Your task to perform on an android device: turn off data saver in the chrome app Image 0: 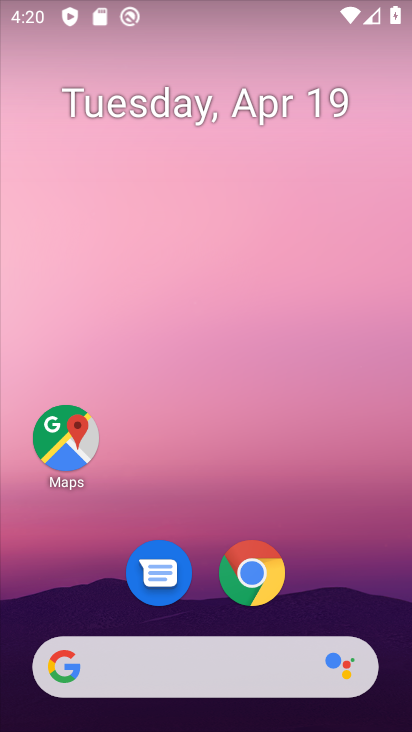
Step 0: drag from (333, 486) to (364, 86)
Your task to perform on an android device: turn off data saver in the chrome app Image 1: 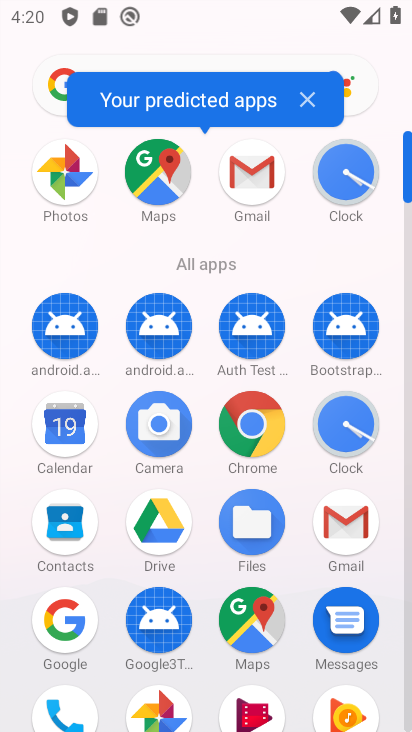
Step 1: click (247, 425)
Your task to perform on an android device: turn off data saver in the chrome app Image 2: 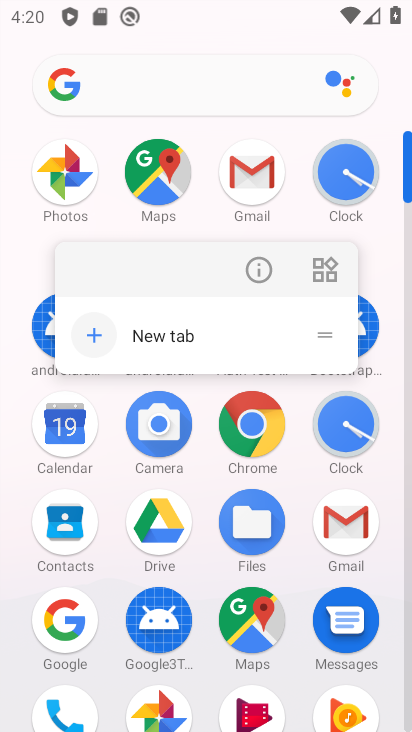
Step 2: click (247, 425)
Your task to perform on an android device: turn off data saver in the chrome app Image 3: 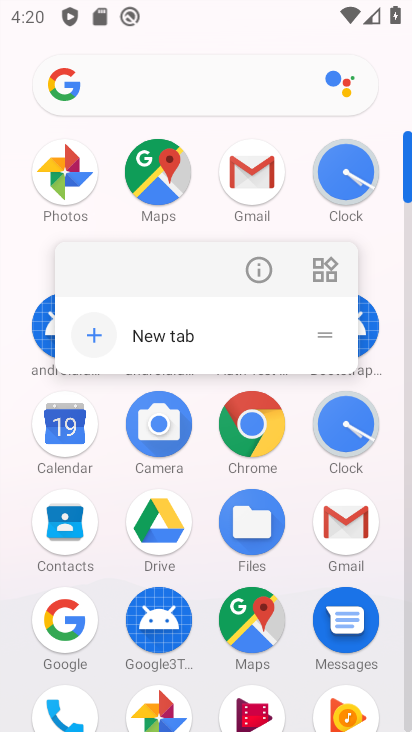
Step 3: click (247, 424)
Your task to perform on an android device: turn off data saver in the chrome app Image 4: 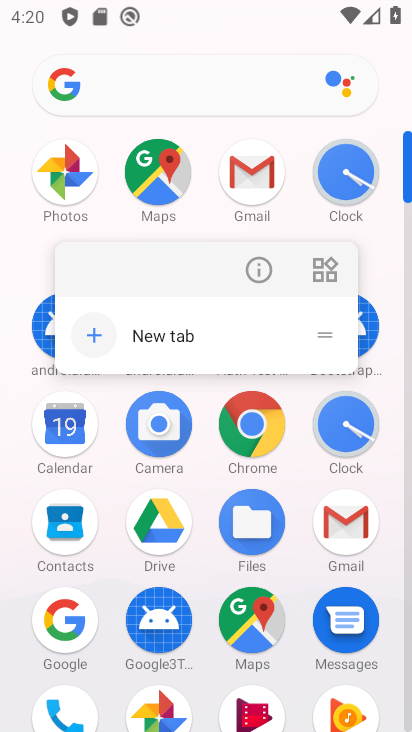
Step 4: click (247, 423)
Your task to perform on an android device: turn off data saver in the chrome app Image 5: 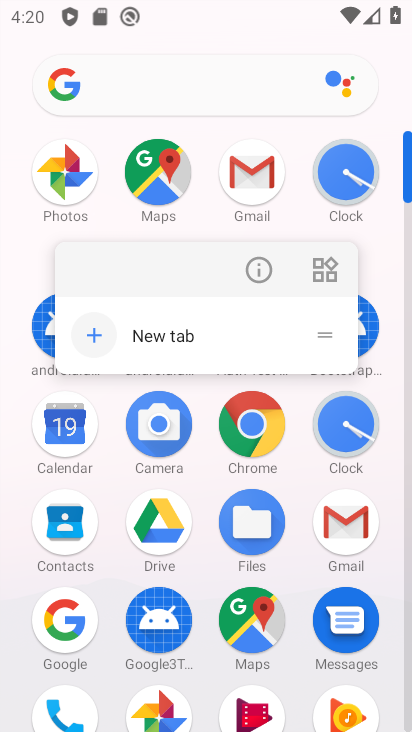
Step 5: click (247, 423)
Your task to perform on an android device: turn off data saver in the chrome app Image 6: 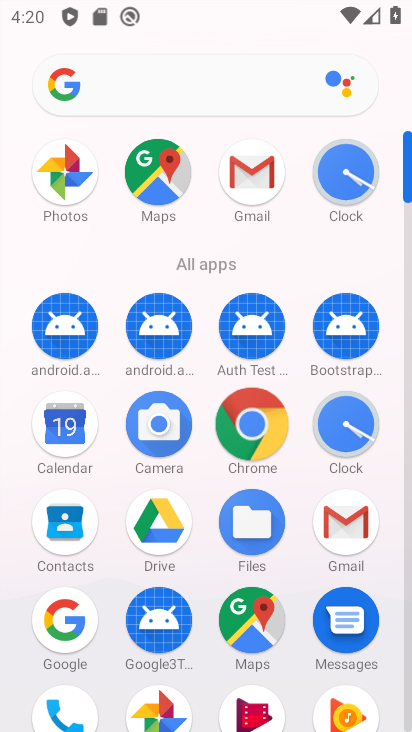
Step 6: click (247, 416)
Your task to perform on an android device: turn off data saver in the chrome app Image 7: 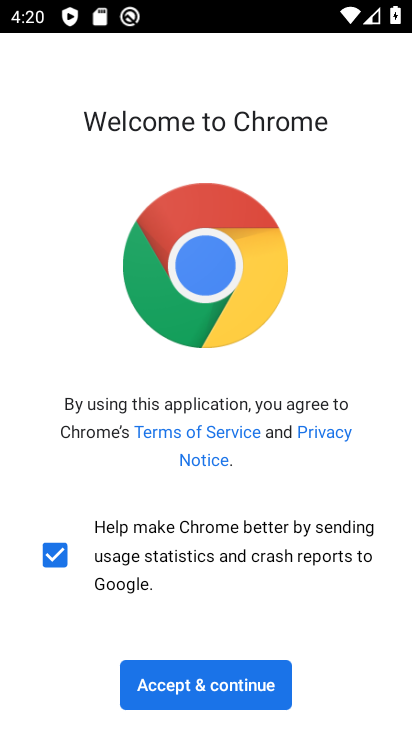
Step 7: click (208, 695)
Your task to perform on an android device: turn off data saver in the chrome app Image 8: 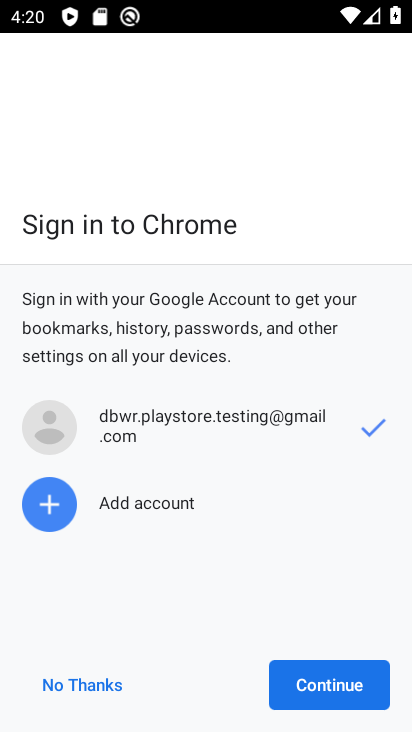
Step 8: click (83, 682)
Your task to perform on an android device: turn off data saver in the chrome app Image 9: 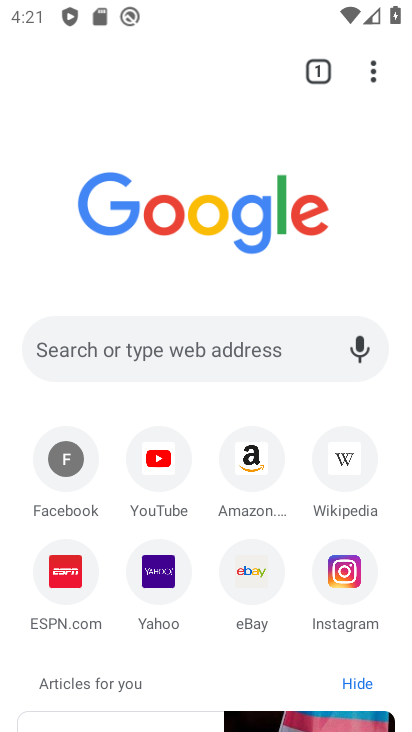
Step 9: drag from (384, 86) to (120, 617)
Your task to perform on an android device: turn off data saver in the chrome app Image 10: 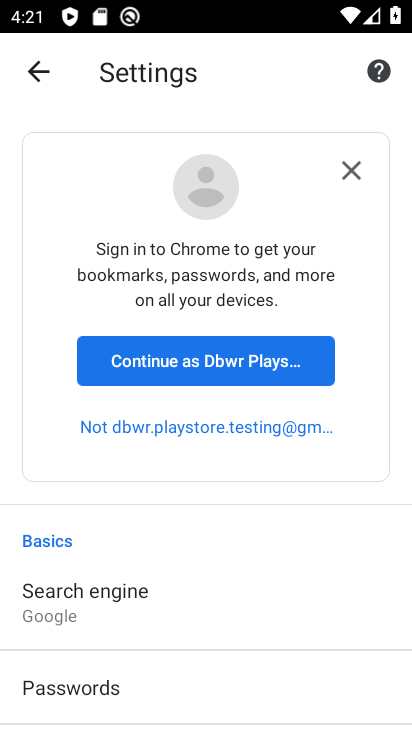
Step 10: drag from (182, 505) to (204, 281)
Your task to perform on an android device: turn off data saver in the chrome app Image 11: 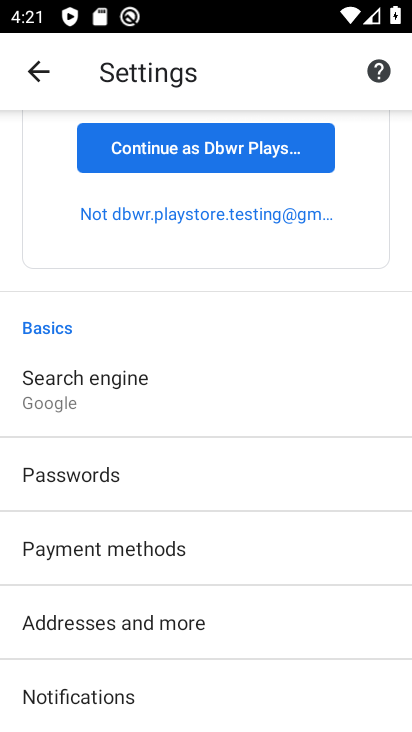
Step 11: drag from (191, 630) to (255, 194)
Your task to perform on an android device: turn off data saver in the chrome app Image 12: 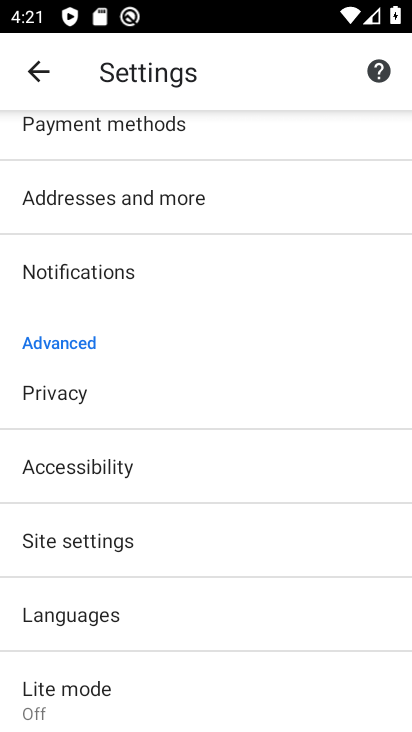
Step 12: click (106, 612)
Your task to perform on an android device: turn off data saver in the chrome app Image 13: 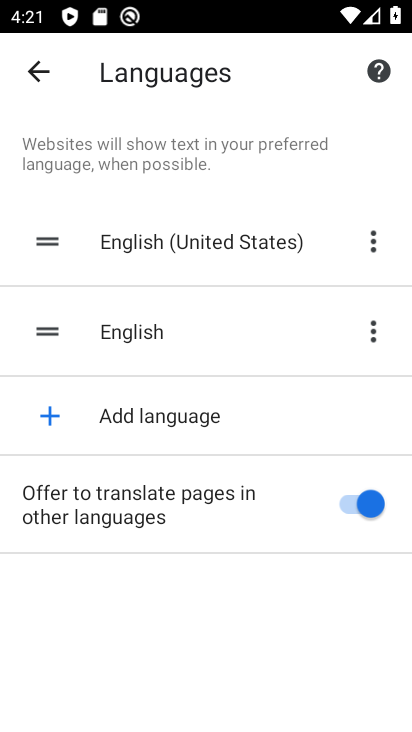
Step 13: click (360, 503)
Your task to perform on an android device: turn off data saver in the chrome app Image 14: 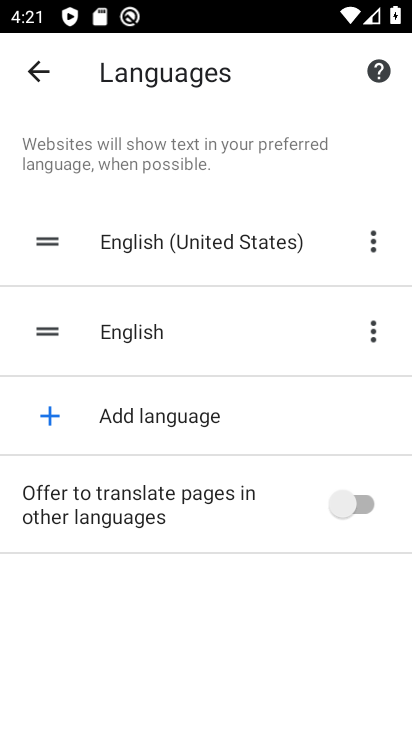
Step 14: task complete